Your task to perform on an android device: What are the new products by Samsung? Image 0: 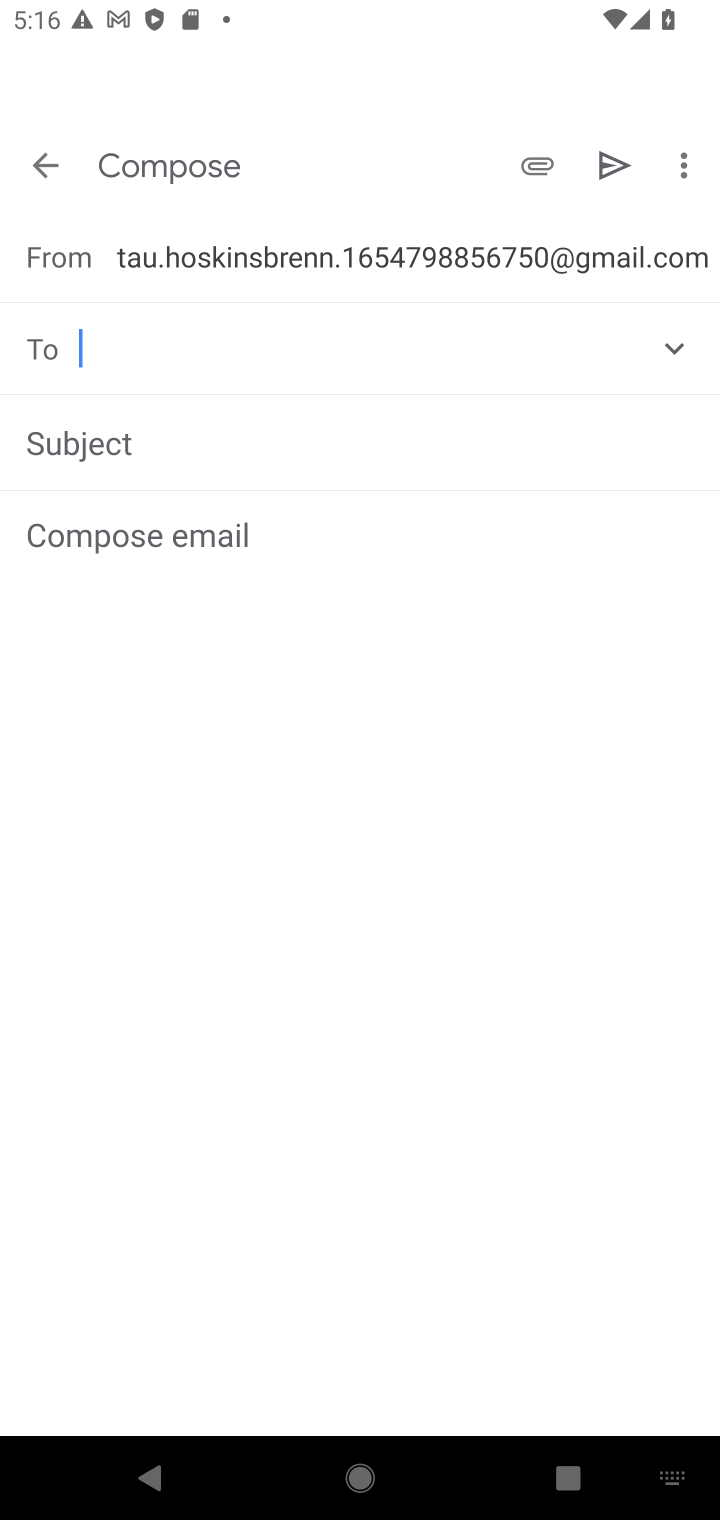
Step 0: press home button
Your task to perform on an android device: What are the new products by Samsung? Image 1: 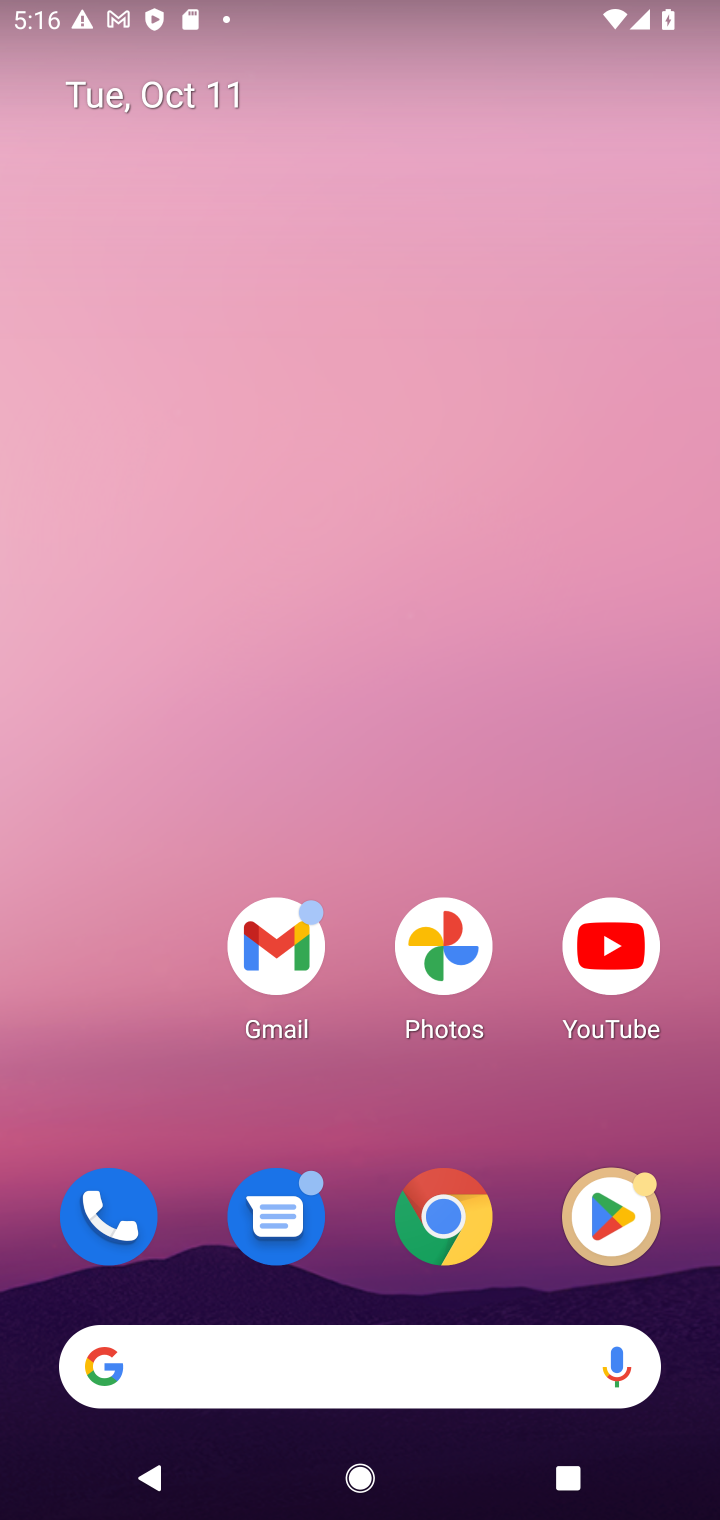
Step 1: click (445, 1215)
Your task to perform on an android device: What are the new products by Samsung? Image 2: 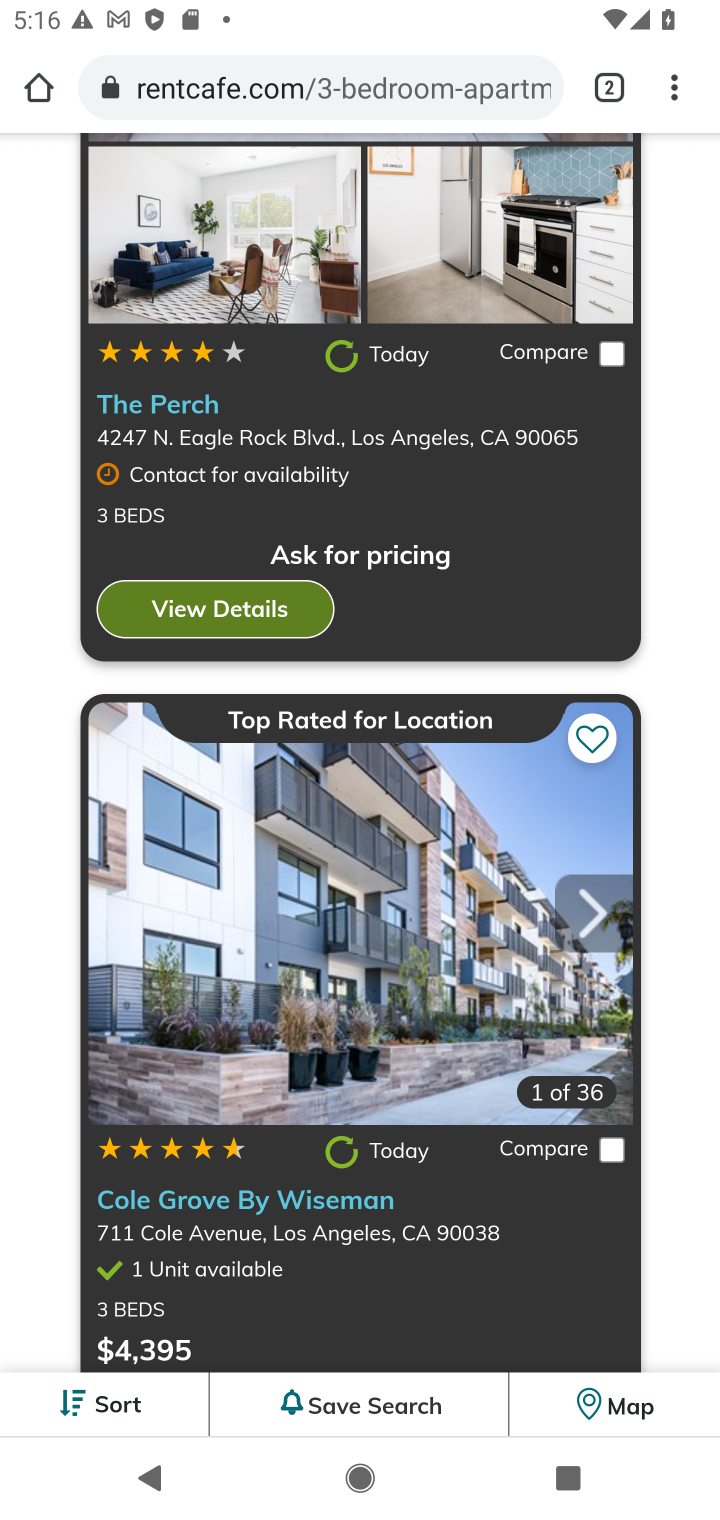
Step 2: click (344, 95)
Your task to perform on an android device: What are the new products by Samsung? Image 3: 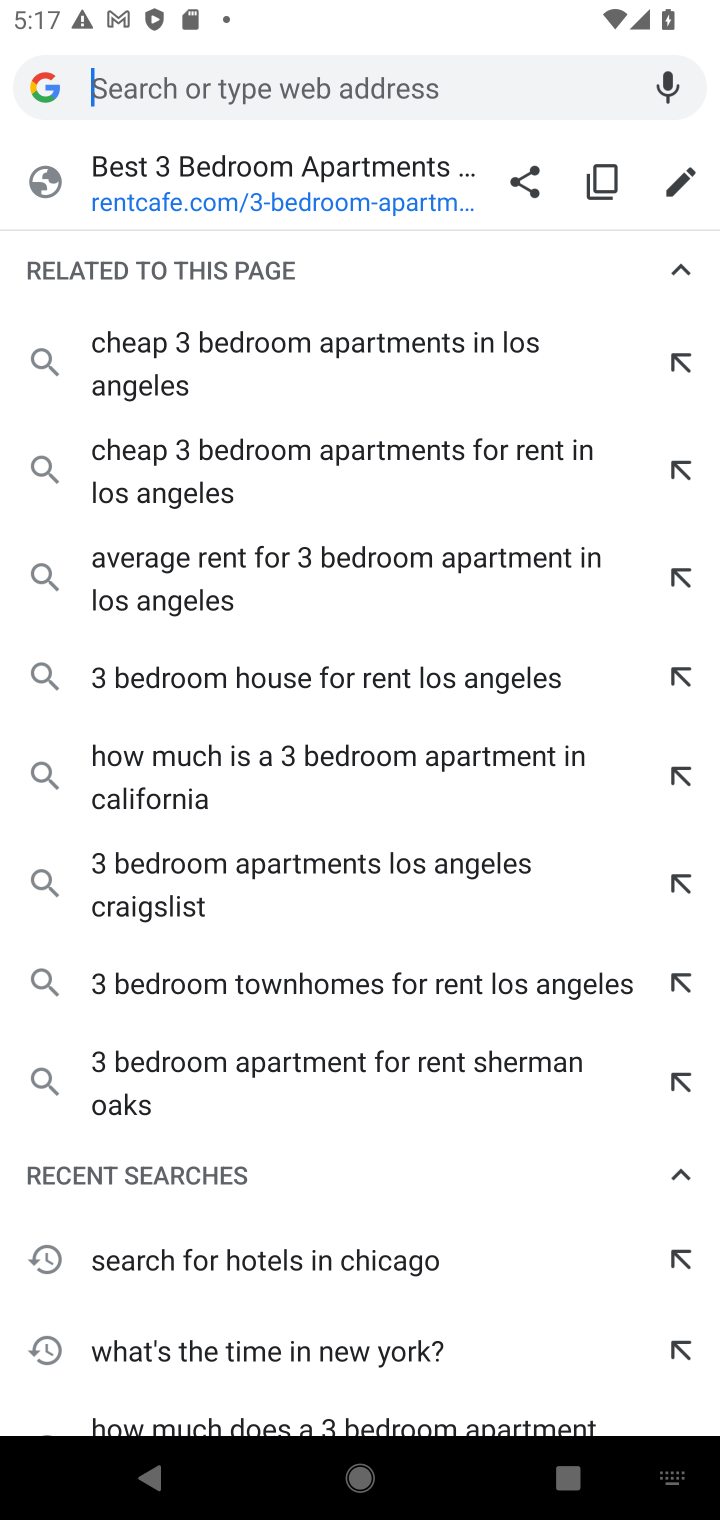
Step 3: type "What are the new products by Samsung?"
Your task to perform on an android device: What are the new products by Samsung? Image 4: 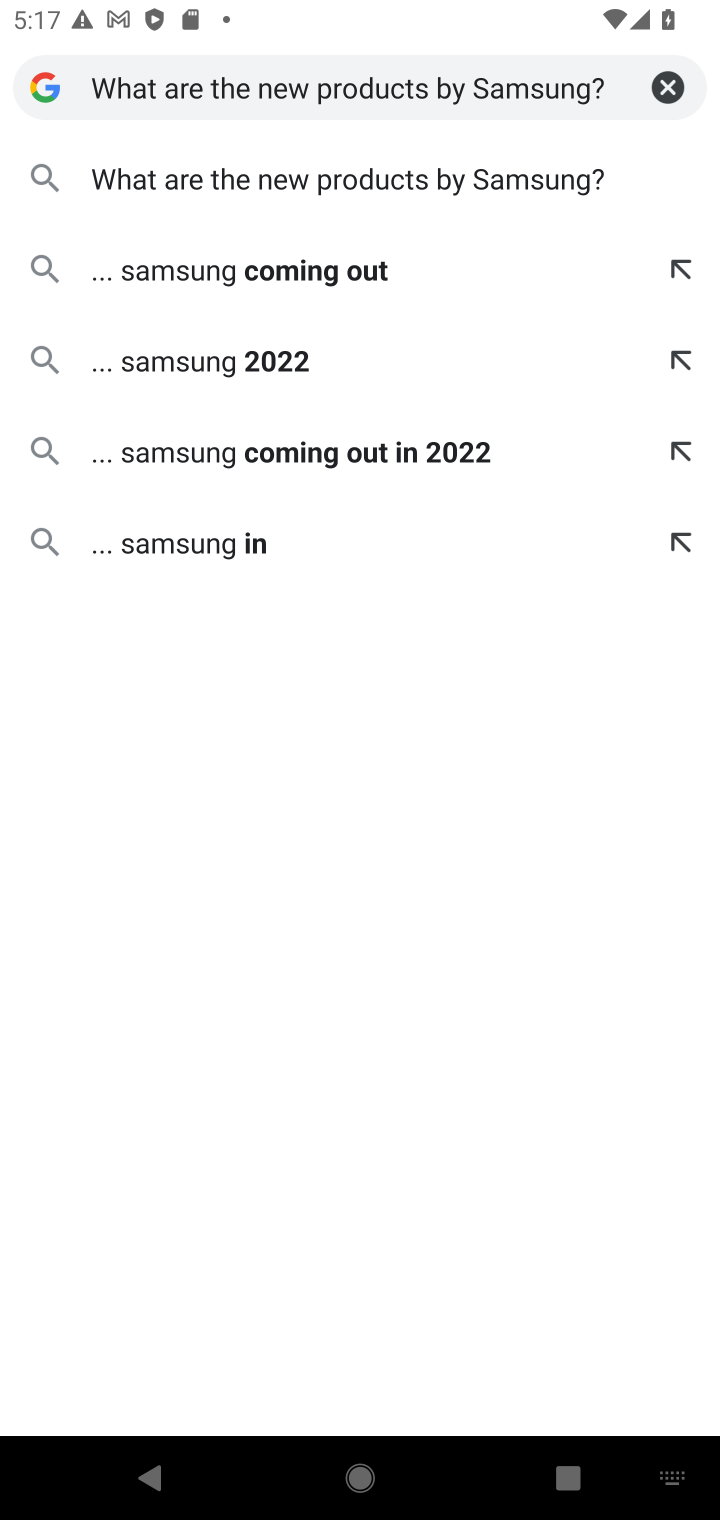
Step 4: click (414, 183)
Your task to perform on an android device: What are the new products by Samsung? Image 5: 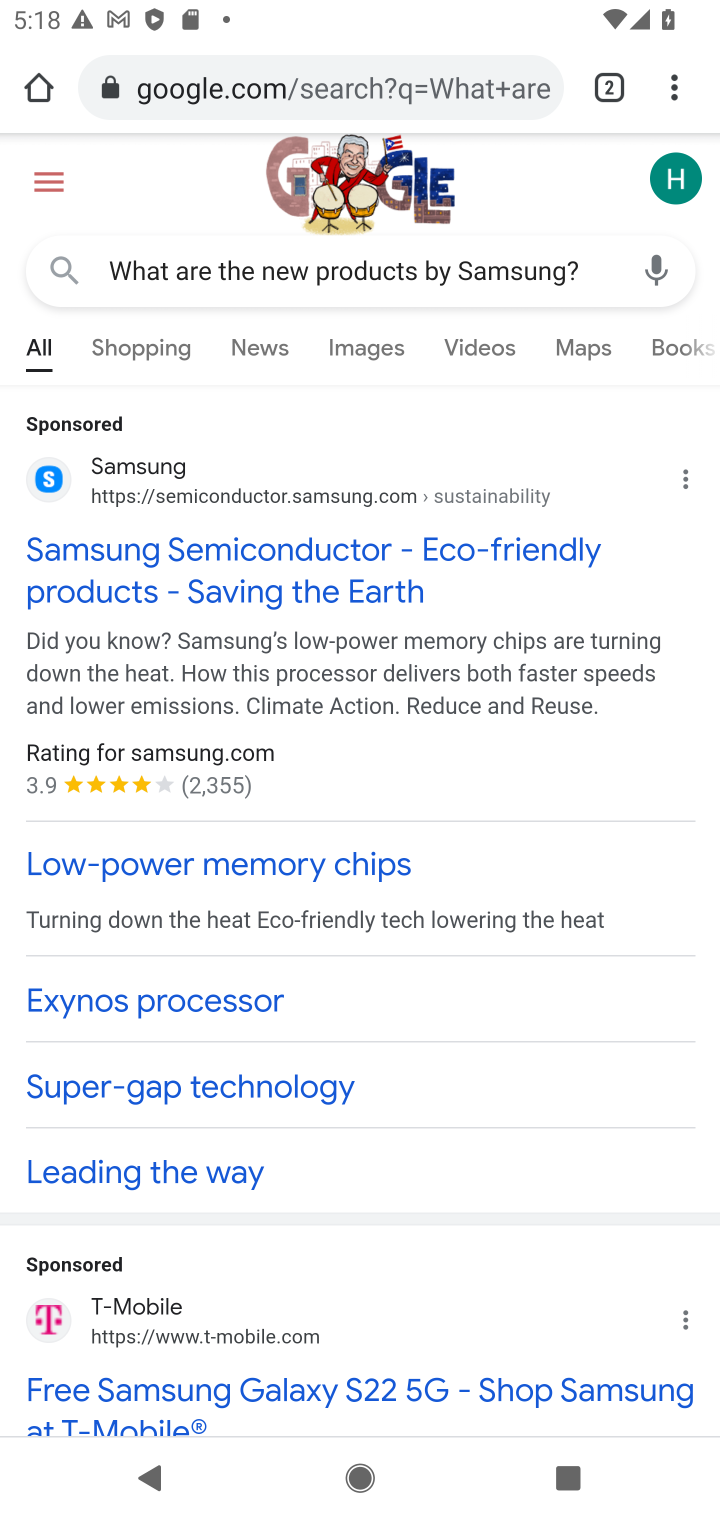
Step 5: drag from (330, 1191) to (436, 787)
Your task to perform on an android device: What are the new products by Samsung? Image 6: 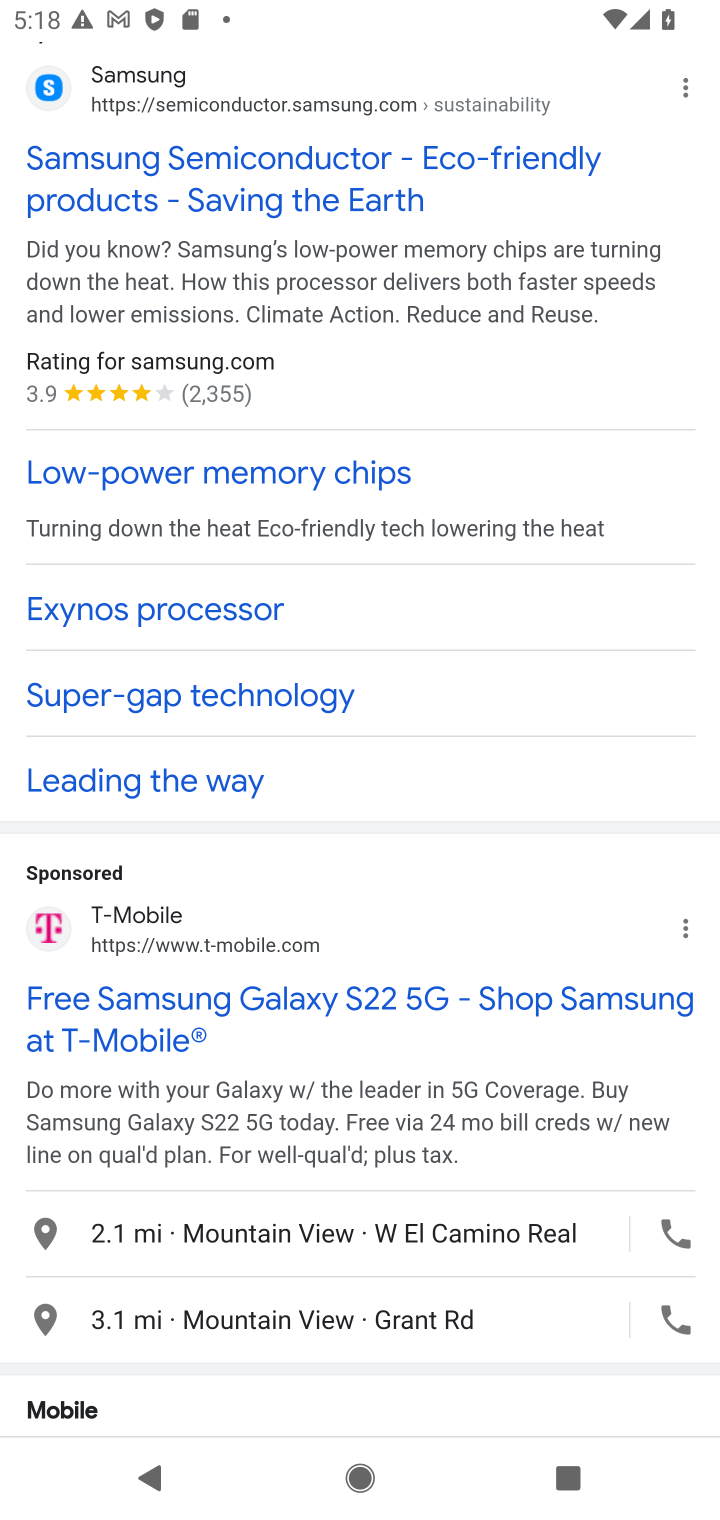
Step 6: drag from (324, 1305) to (483, 694)
Your task to perform on an android device: What are the new products by Samsung? Image 7: 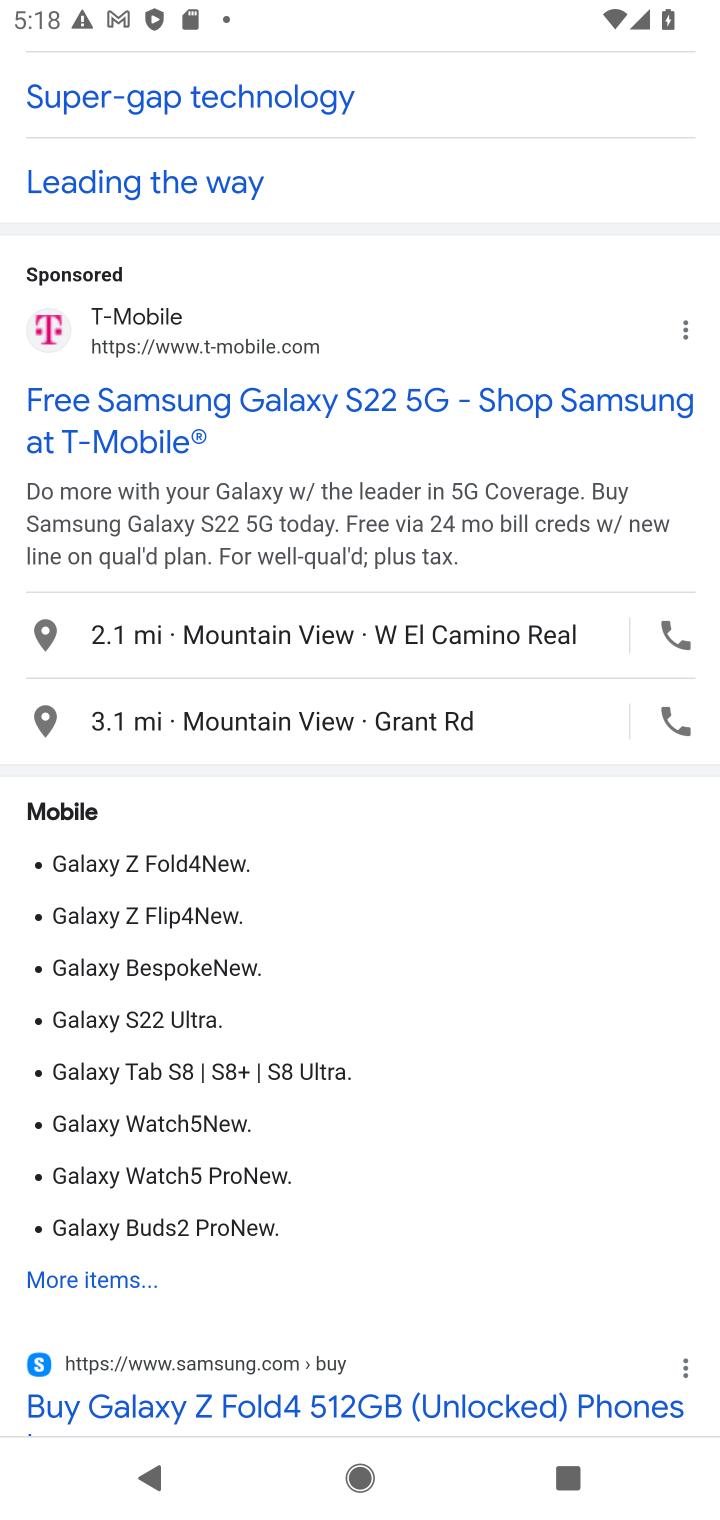
Step 7: drag from (278, 1263) to (400, 930)
Your task to perform on an android device: What are the new products by Samsung? Image 8: 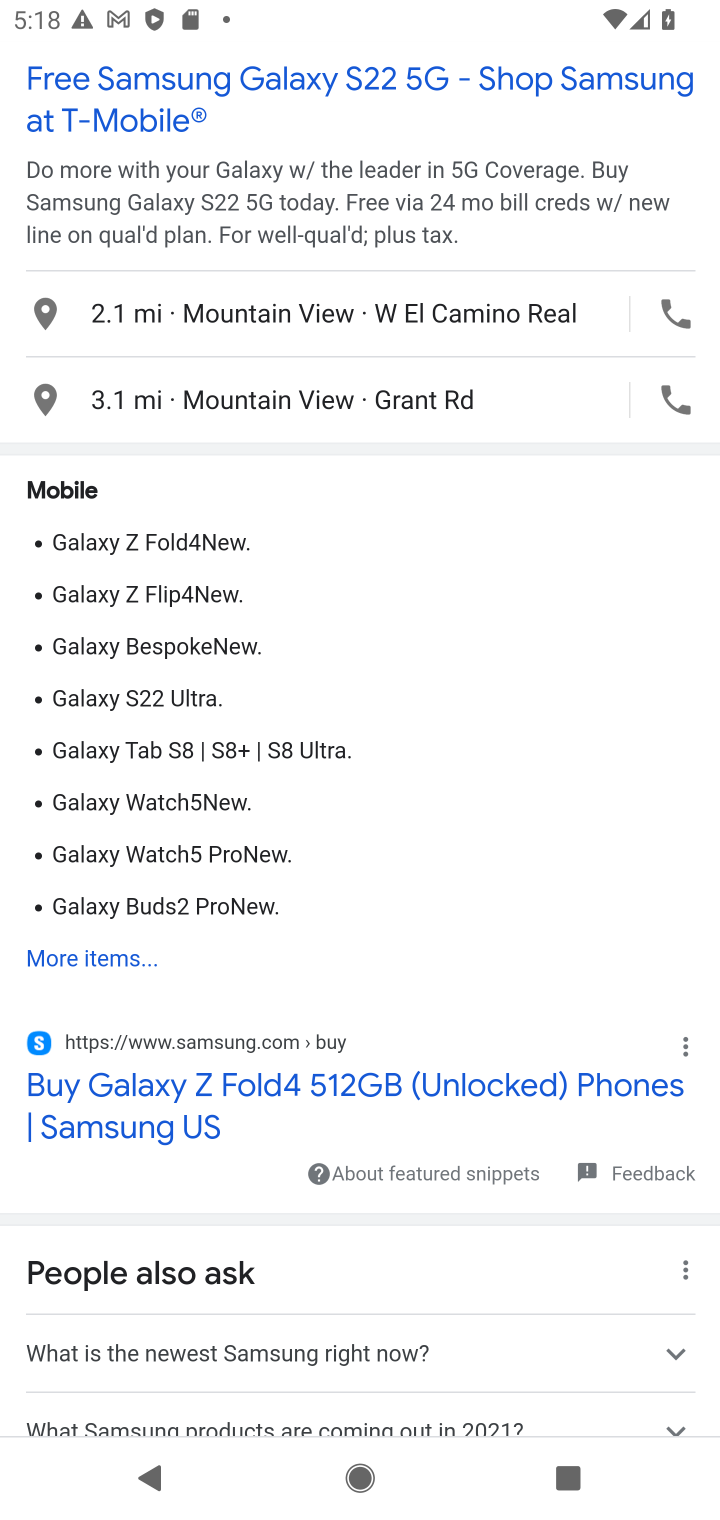
Step 8: click (87, 947)
Your task to perform on an android device: What are the new products by Samsung? Image 9: 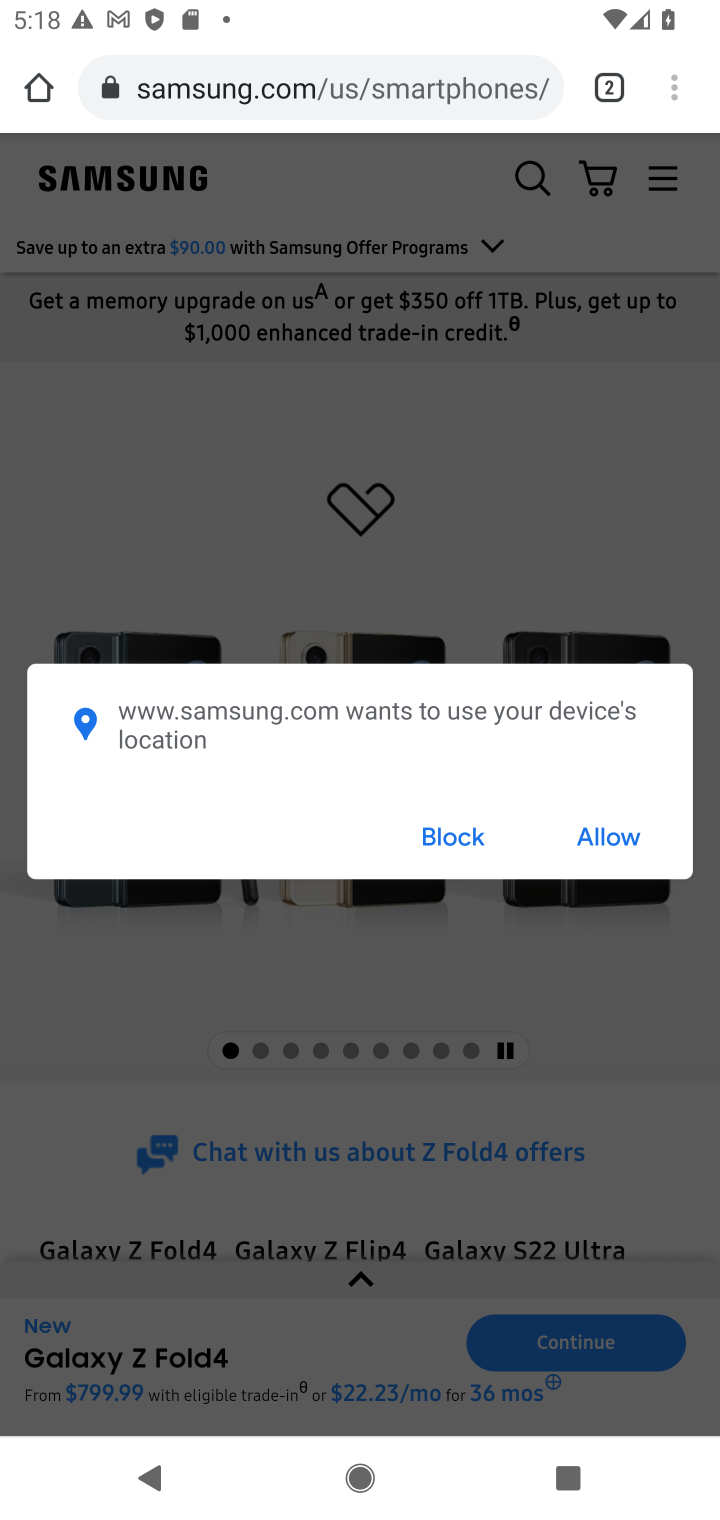
Step 9: click (602, 840)
Your task to perform on an android device: What are the new products by Samsung? Image 10: 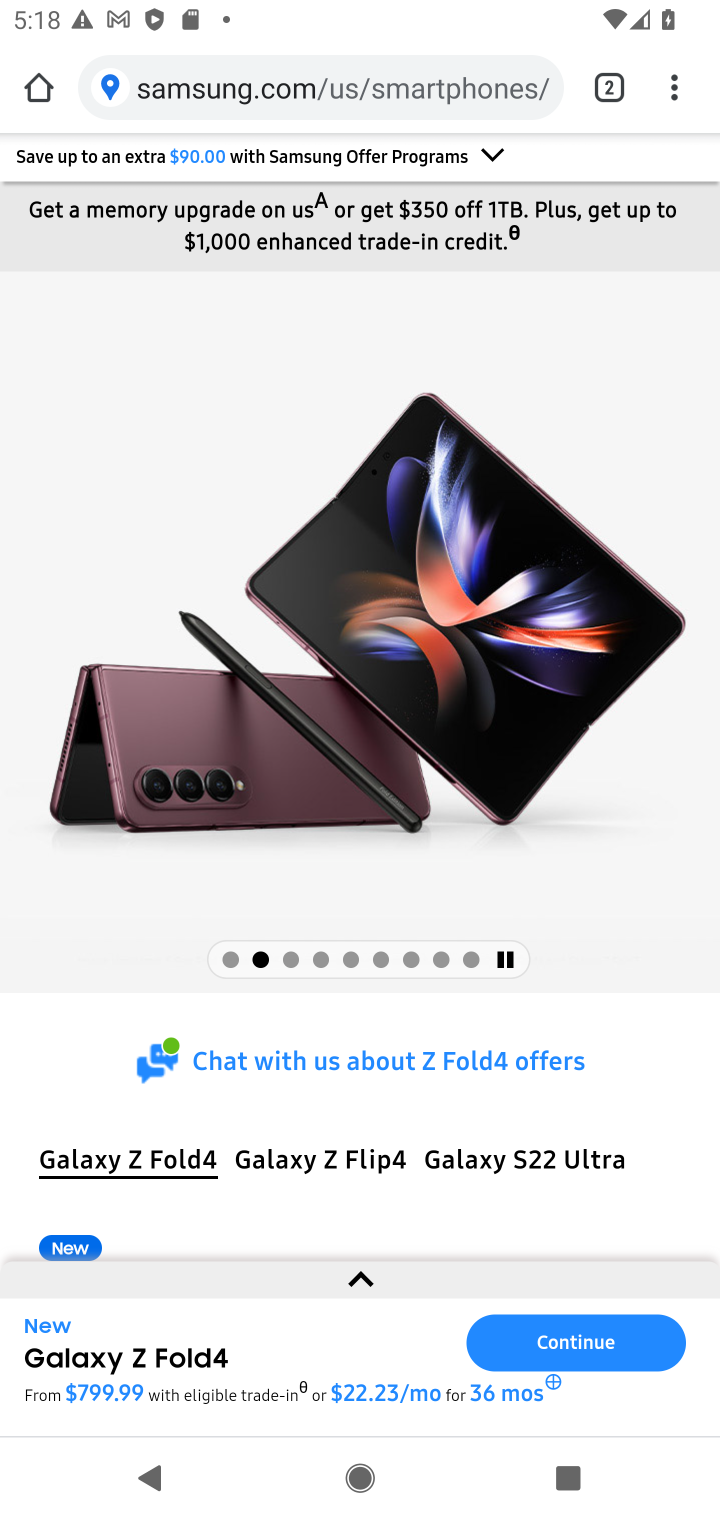
Step 10: task complete